Your task to perform on an android device: Show me recent news Image 0: 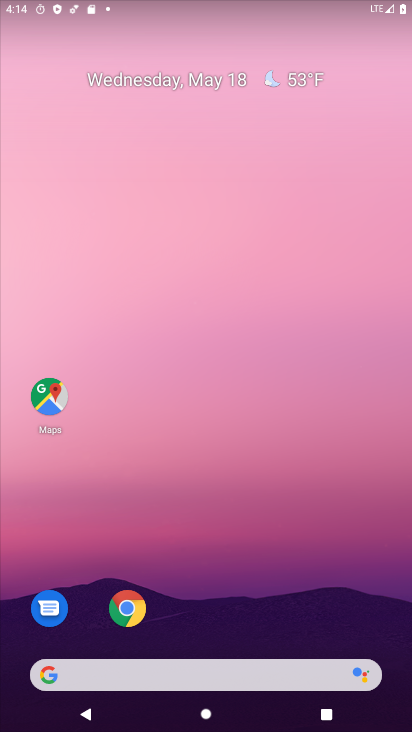
Step 0: drag from (277, 669) to (296, 52)
Your task to perform on an android device: Show me recent news Image 1: 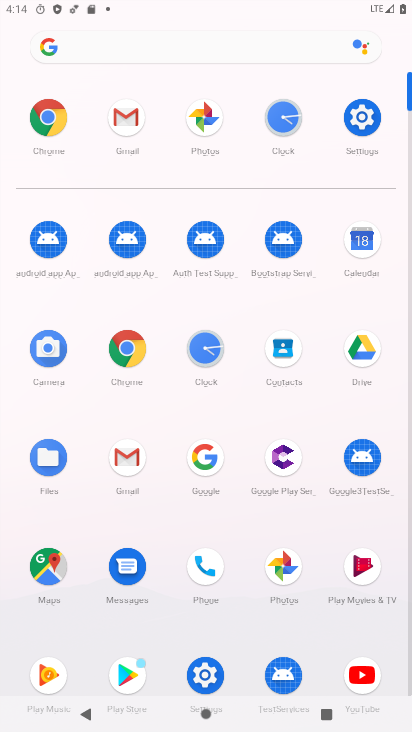
Step 1: click (127, 353)
Your task to perform on an android device: Show me recent news Image 2: 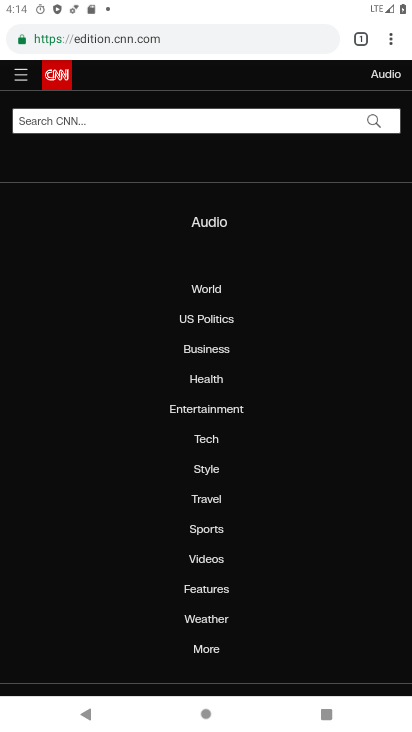
Step 2: click (166, 36)
Your task to perform on an android device: Show me recent news Image 3: 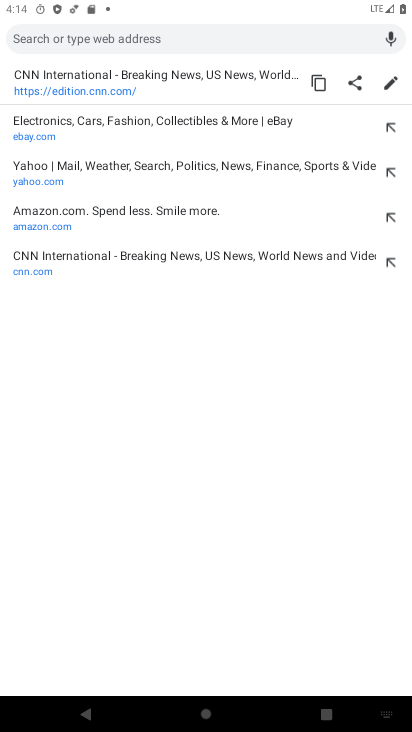
Step 3: type "recent news"
Your task to perform on an android device: Show me recent news Image 4: 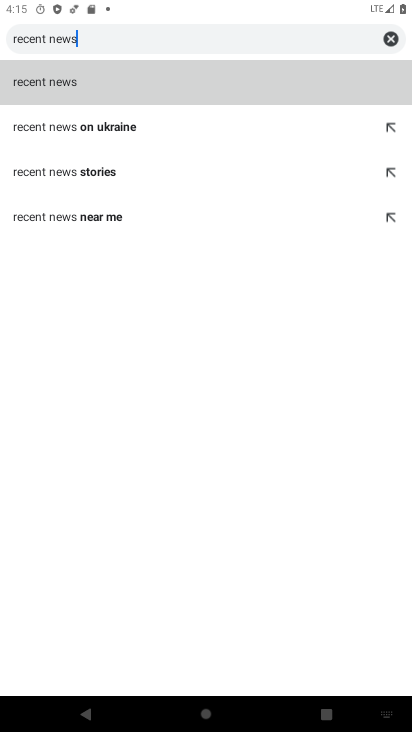
Step 4: click (95, 90)
Your task to perform on an android device: Show me recent news Image 5: 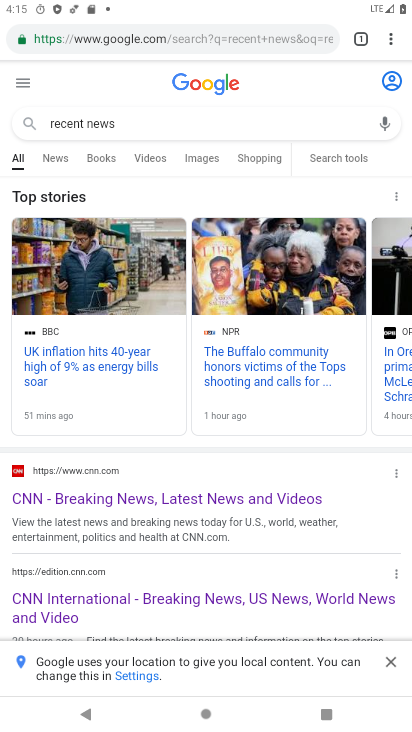
Step 5: task complete